Your task to perform on an android device: turn pop-ups on in chrome Image 0: 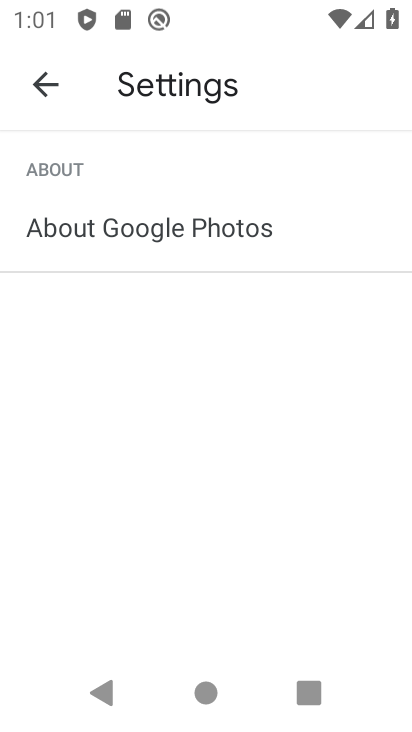
Step 0: press home button
Your task to perform on an android device: turn pop-ups on in chrome Image 1: 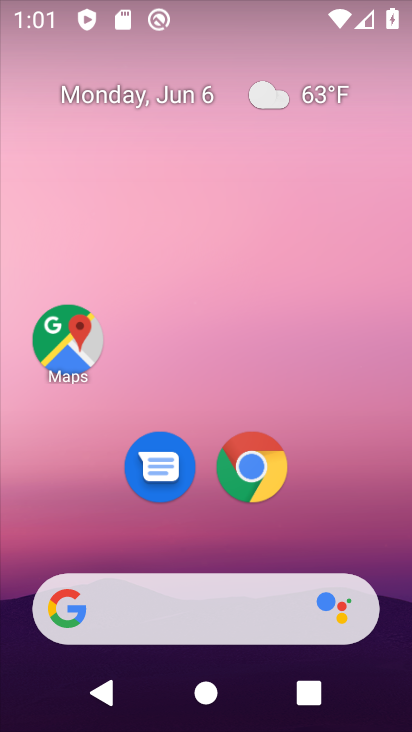
Step 1: drag from (386, 620) to (294, 76)
Your task to perform on an android device: turn pop-ups on in chrome Image 2: 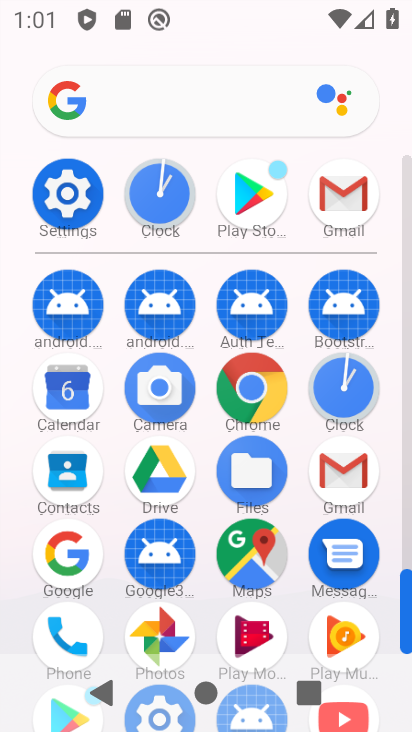
Step 2: click (229, 394)
Your task to perform on an android device: turn pop-ups on in chrome Image 3: 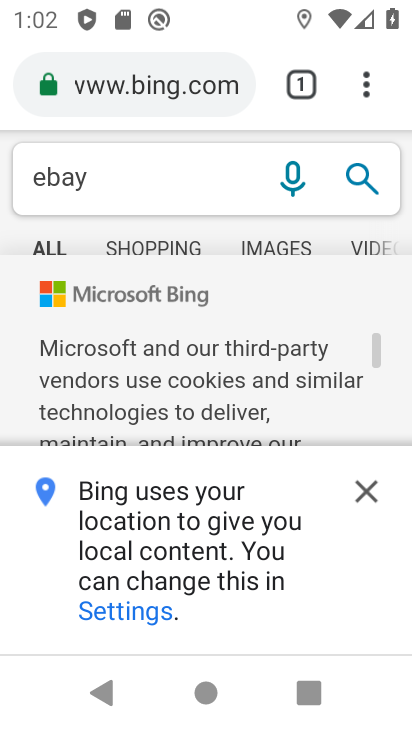
Step 3: press back button
Your task to perform on an android device: turn pop-ups on in chrome Image 4: 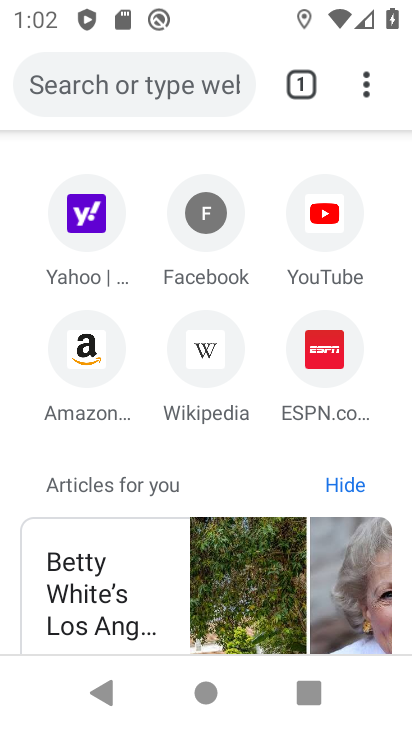
Step 4: click (359, 75)
Your task to perform on an android device: turn pop-ups on in chrome Image 5: 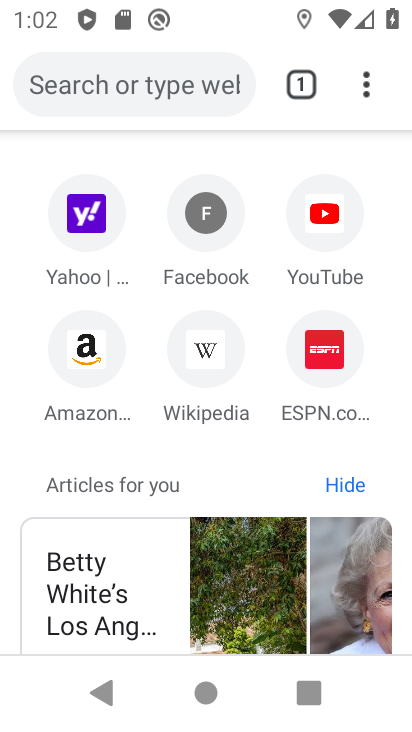
Step 5: click (369, 82)
Your task to perform on an android device: turn pop-ups on in chrome Image 6: 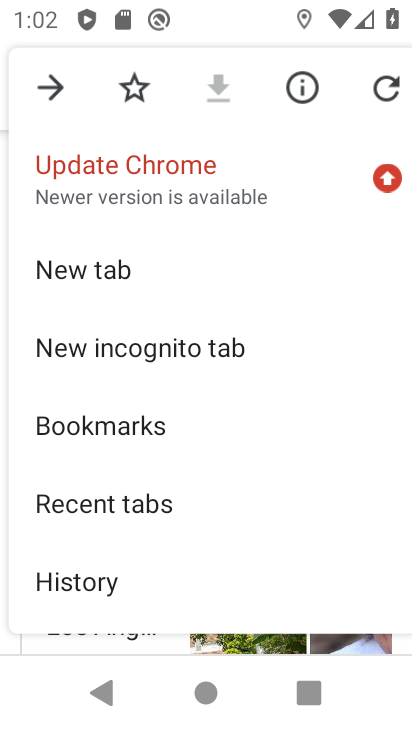
Step 6: drag from (183, 561) to (410, 575)
Your task to perform on an android device: turn pop-ups on in chrome Image 7: 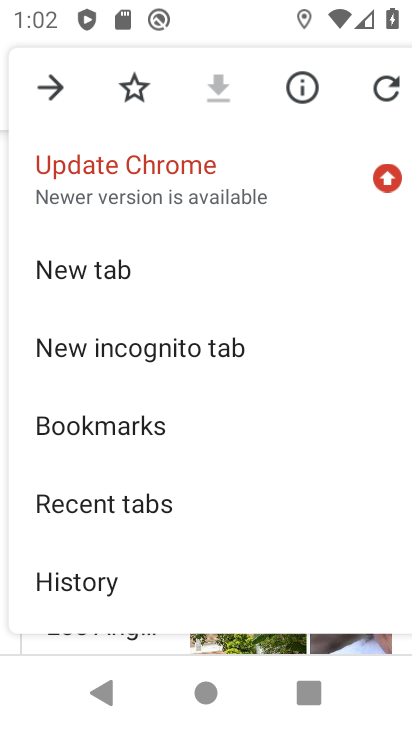
Step 7: drag from (109, 557) to (73, 42)
Your task to perform on an android device: turn pop-ups on in chrome Image 8: 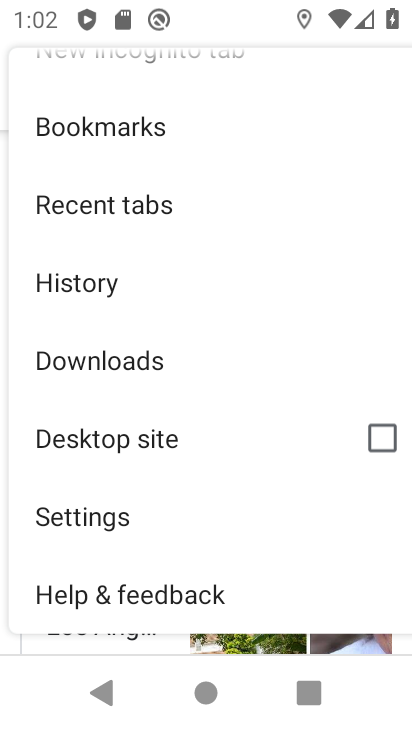
Step 8: click (111, 504)
Your task to perform on an android device: turn pop-ups on in chrome Image 9: 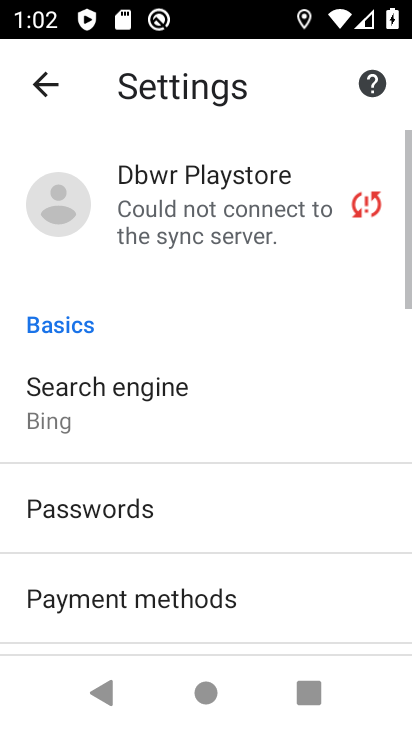
Step 9: drag from (131, 617) to (157, 111)
Your task to perform on an android device: turn pop-ups on in chrome Image 10: 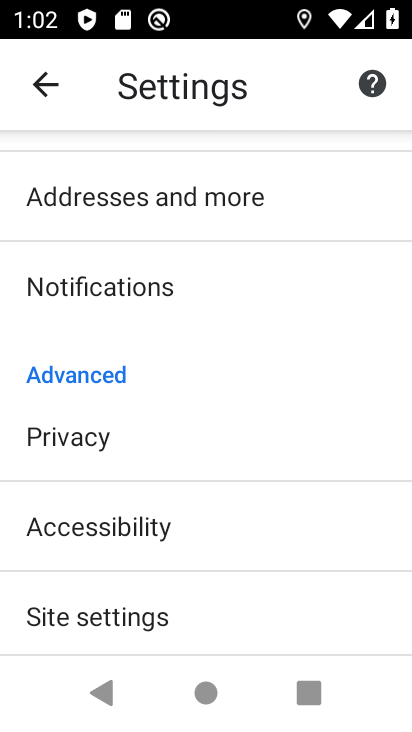
Step 10: drag from (214, 299) to (177, 131)
Your task to perform on an android device: turn pop-ups on in chrome Image 11: 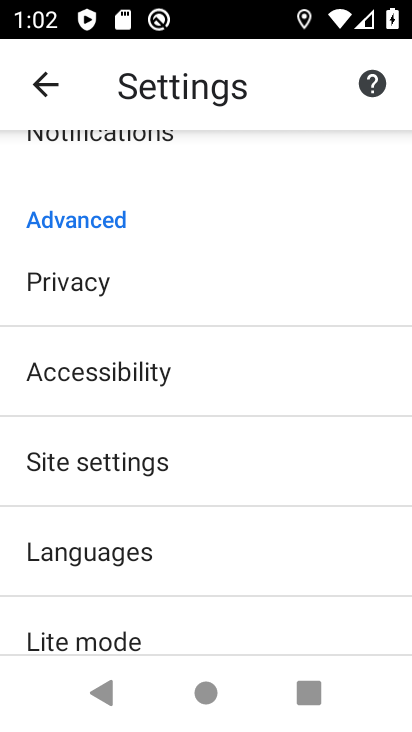
Step 11: click (145, 472)
Your task to perform on an android device: turn pop-ups on in chrome Image 12: 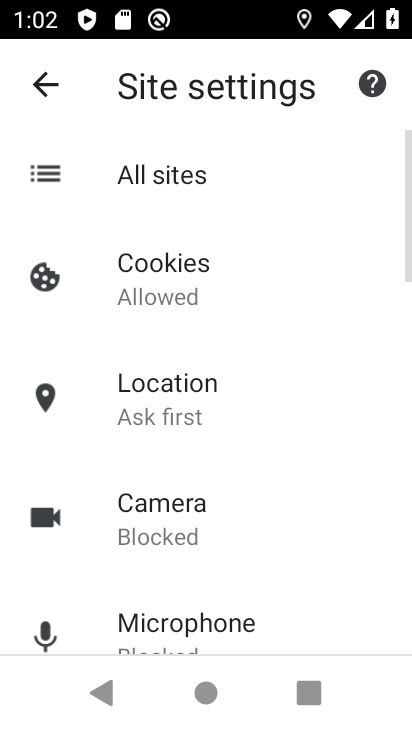
Step 12: drag from (187, 621) to (192, 184)
Your task to perform on an android device: turn pop-ups on in chrome Image 13: 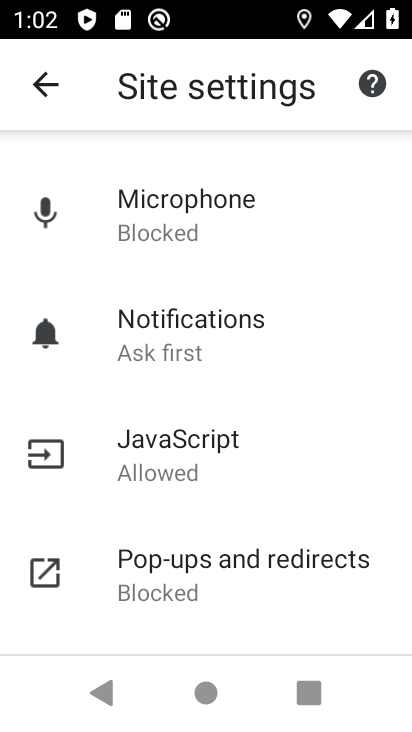
Step 13: click (184, 578)
Your task to perform on an android device: turn pop-ups on in chrome Image 14: 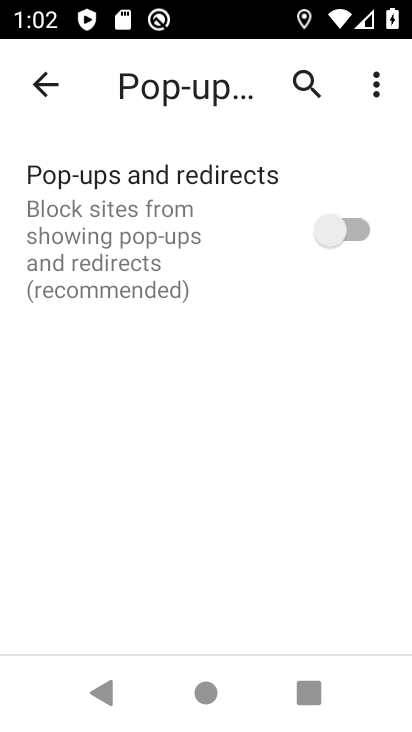
Step 14: click (319, 235)
Your task to perform on an android device: turn pop-ups on in chrome Image 15: 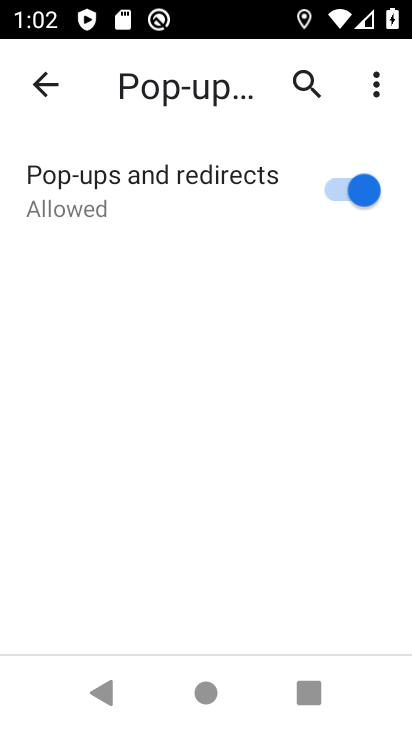
Step 15: task complete